Your task to perform on an android device: Go to settings Image 0: 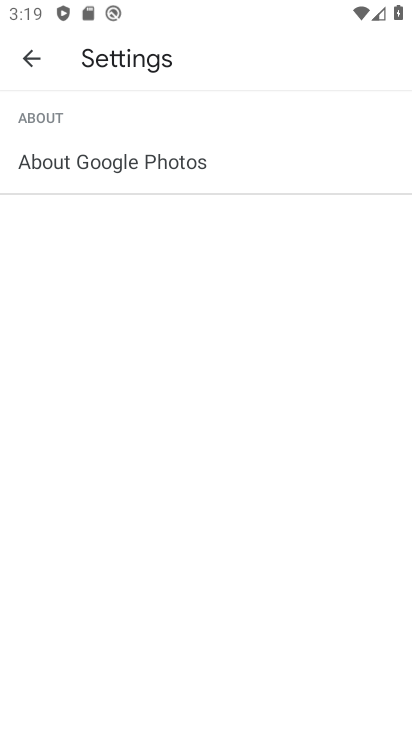
Step 0: press home button
Your task to perform on an android device: Go to settings Image 1: 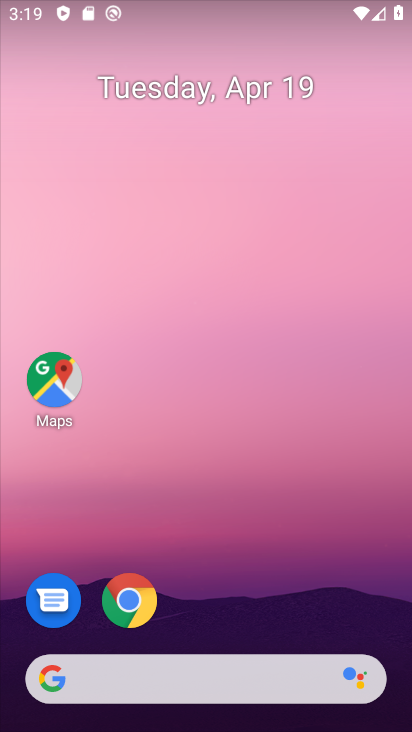
Step 1: drag from (328, 14) to (344, 679)
Your task to perform on an android device: Go to settings Image 2: 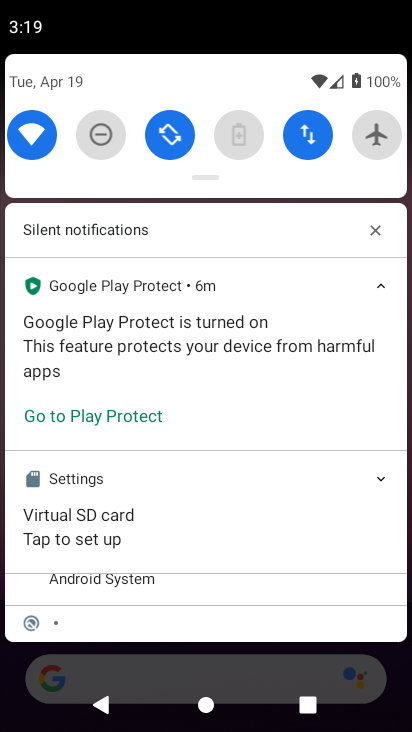
Step 2: drag from (185, 104) to (193, 613)
Your task to perform on an android device: Go to settings Image 3: 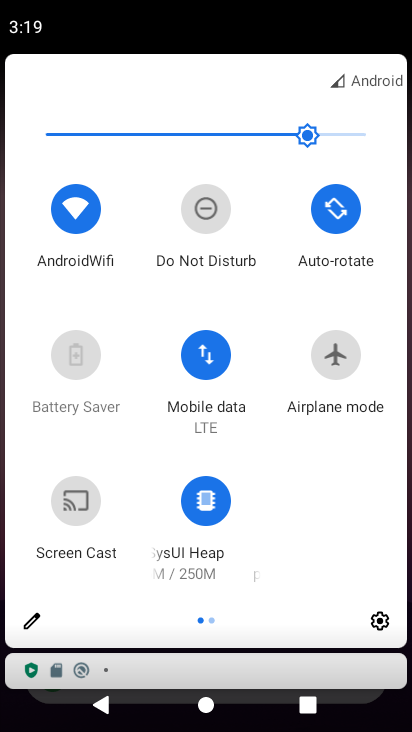
Step 3: click (377, 610)
Your task to perform on an android device: Go to settings Image 4: 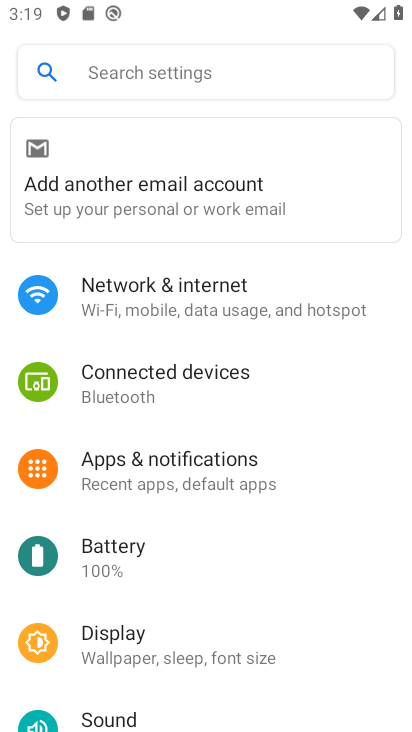
Step 4: task complete